Your task to perform on an android device: open a bookmark in the chrome app Image 0: 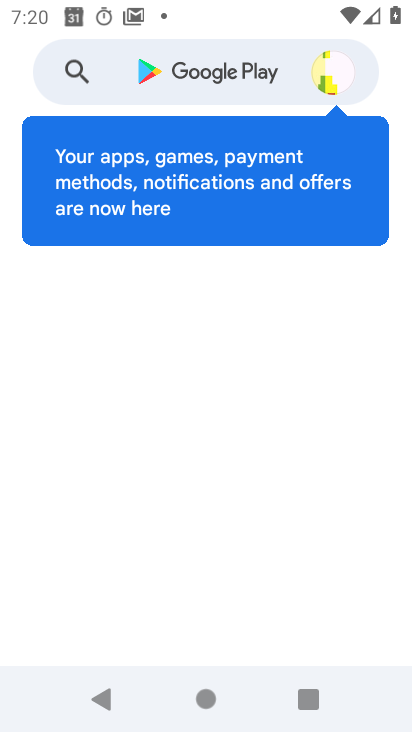
Step 0: press home button
Your task to perform on an android device: open a bookmark in the chrome app Image 1: 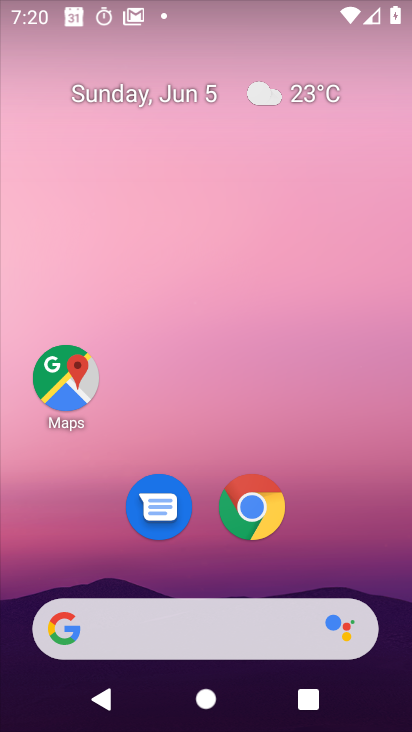
Step 1: drag from (254, 672) to (278, 196)
Your task to perform on an android device: open a bookmark in the chrome app Image 2: 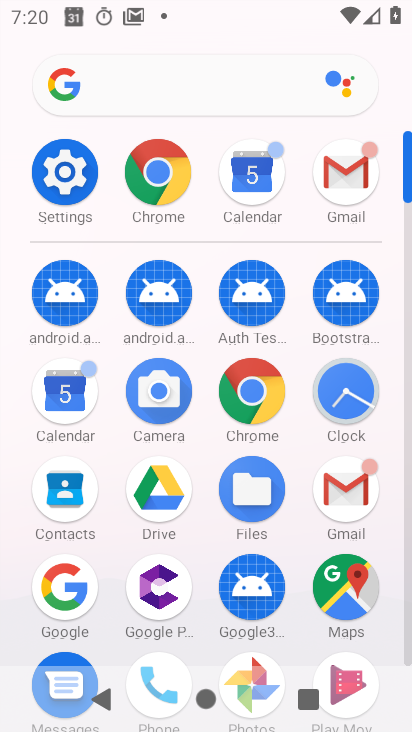
Step 2: click (129, 173)
Your task to perform on an android device: open a bookmark in the chrome app Image 3: 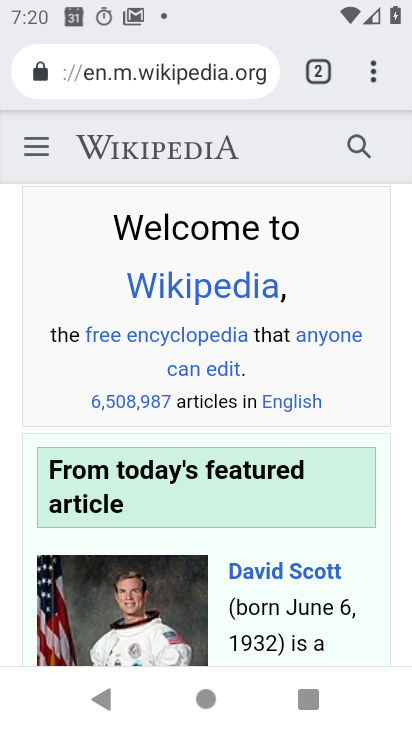
Step 3: click (373, 93)
Your task to perform on an android device: open a bookmark in the chrome app Image 4: 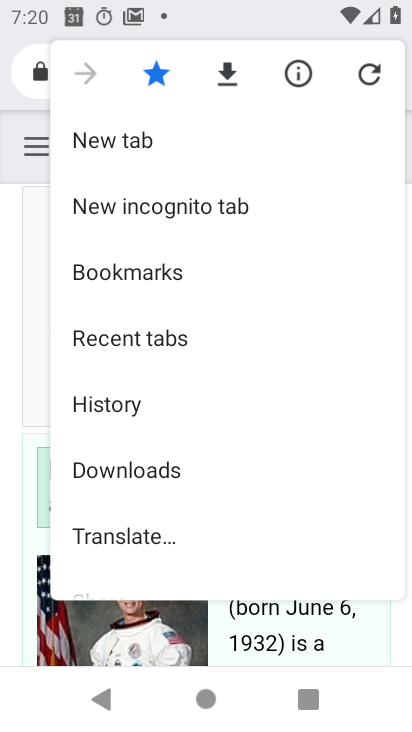
Step 4: click (144, 485)
Your task to perform on an android device: open a bookmark in the chrome app Image 5: 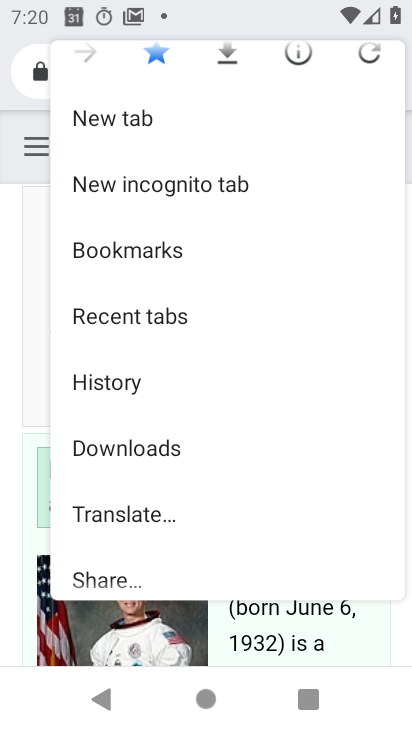
Step 5: click (155, 242)
Your task to perform on an android device: open a bookmark in the chrome app Image 6: 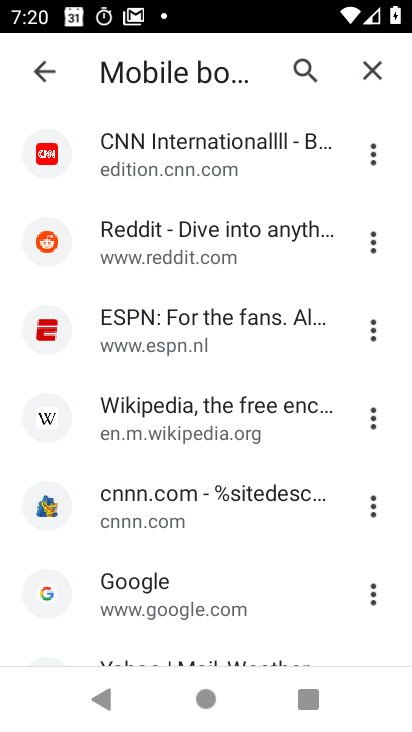
Step 6: task complete